Your task to perform on an android device: turn on wifi Image 0: 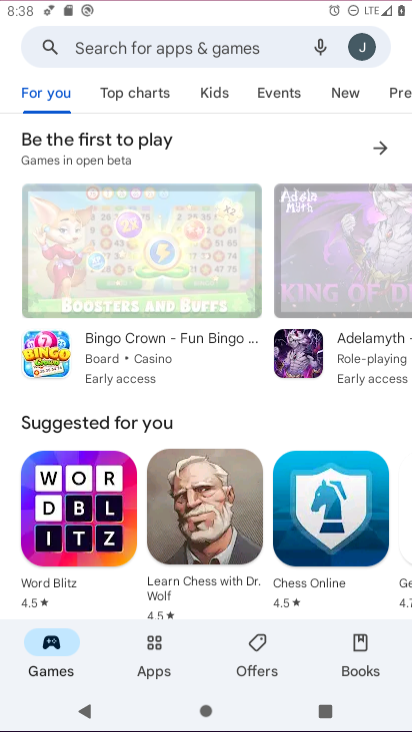
Step 0: drag from (240, 599) to (297, 289)
Your task to perform on an android device: turn on wifi Image 1: 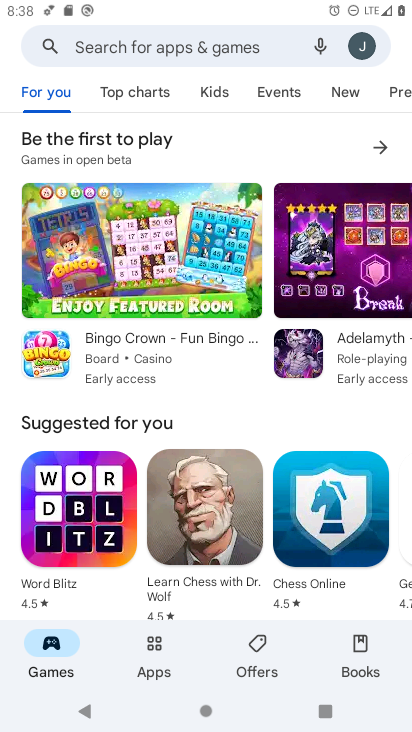
Step 1: press home button
Your task to perform on an android device: turn on wifi Image 2: 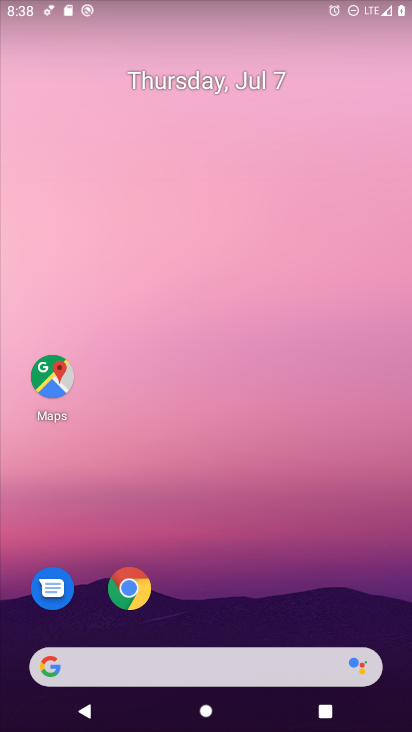
Step 2: drag from (238, 623) to (248, 170)
Your task to perform on an android device: turn on wifi Image 3: 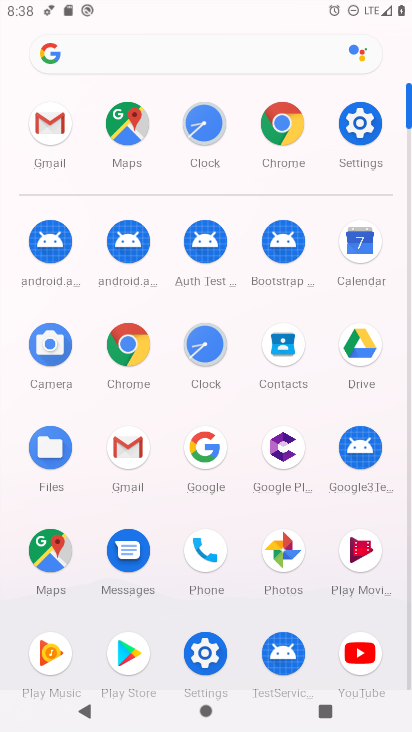
Step 3: click (351, 130)
Your task to perform on an android device: turn on wifi Image 4: 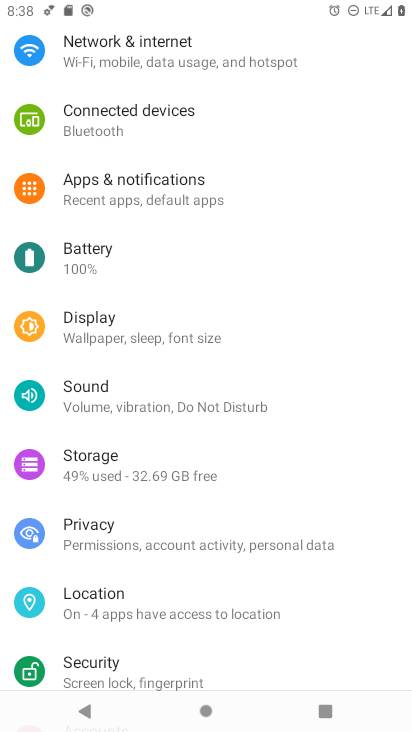
Step 4: drag from (191, 86) to (178, 370)
Your task to perform on an android device: turn on wifi Image 5: 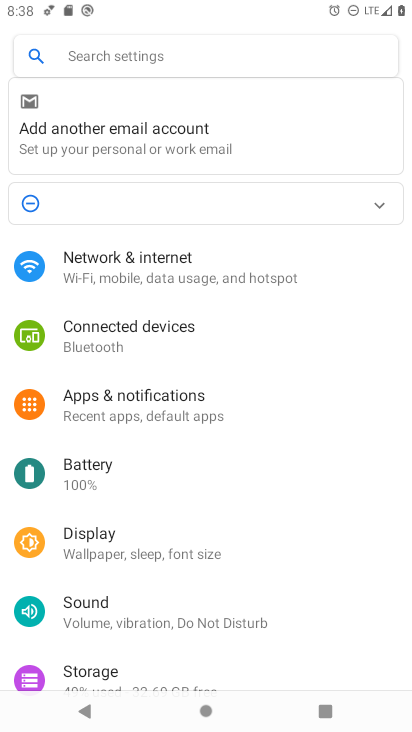
Step 5: click (134, 265)
Your task to perform on an android device: turn on wifi Image 6: 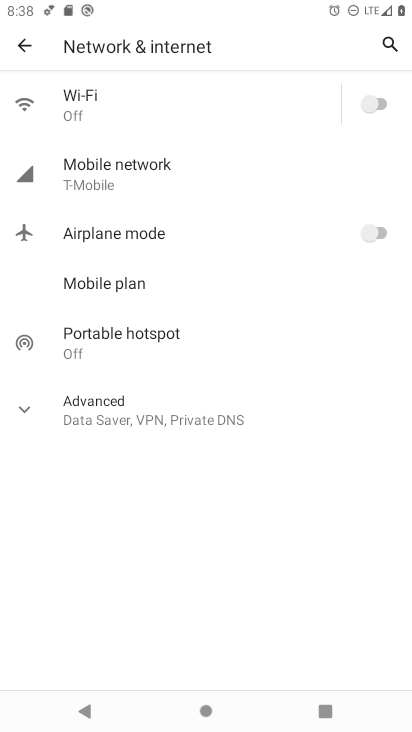
Step 6: click (371, 106)
Your task to perform on an android device: turn on wifi Image 7: 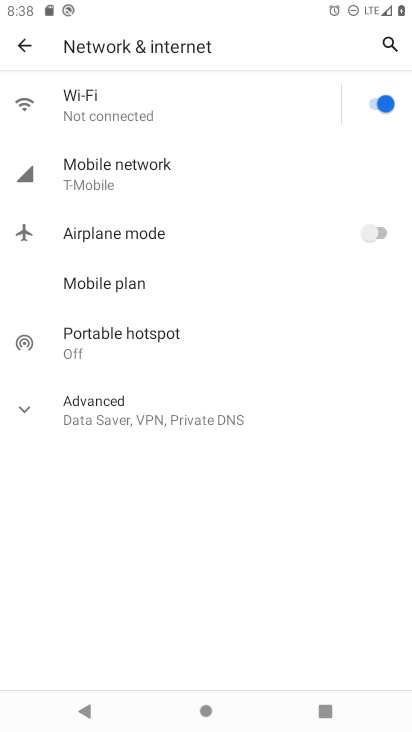
Step 7: task complete